Your task to perform on an android device: turn on improve location accuracy Image 0: 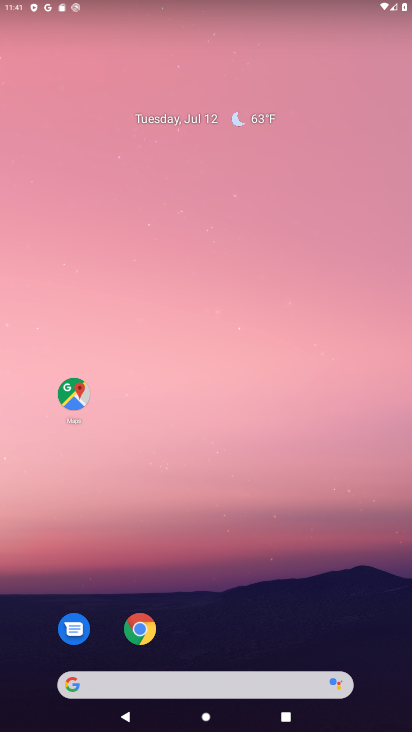
Step 0: drag from (224, 616) to (250, 158)
Your task to perform on an android device: turn on improve location accuracy Image 1: 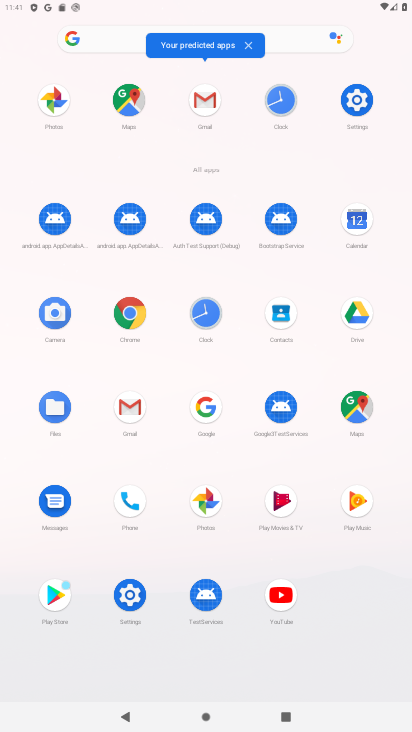
Step 1: click (123, 599)
Your task to perform on an android device: turn on improve location accuracy Image 2: 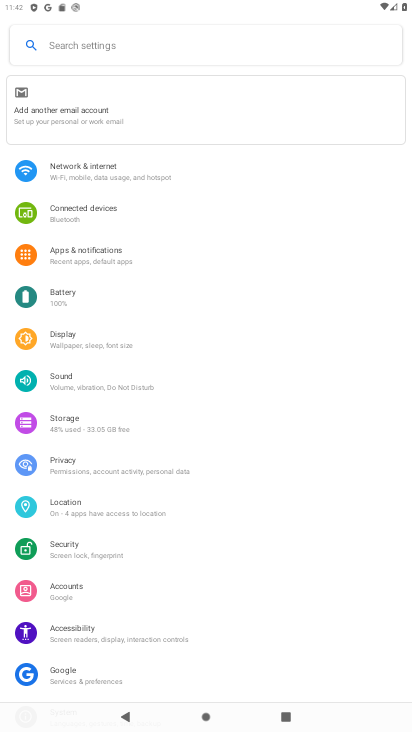
Step 2: click (99, 516)
Your task to perform on an android device: turn on improve location accuracy Image 3: 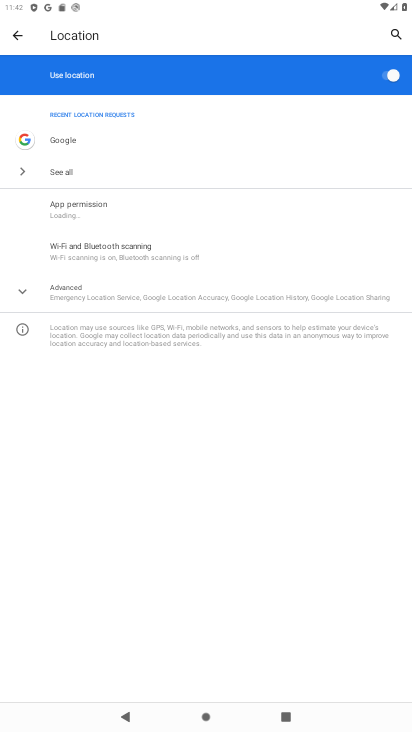
Step 3: click (87, 295)
Your task to perform on an android device: turn on improve location accuracy Image 4: 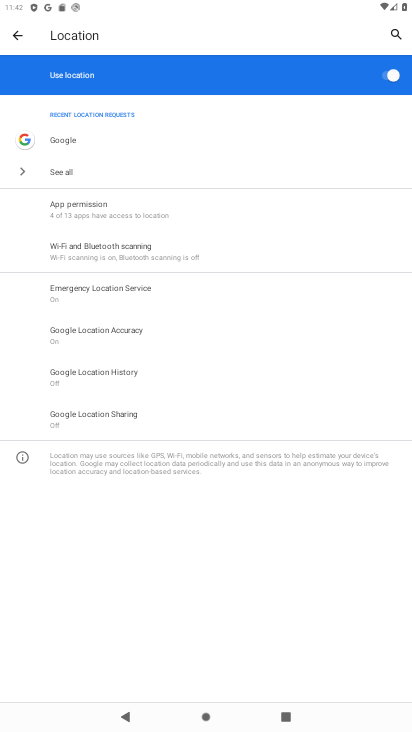
Step 4: click (91, 357)
Your task to perform on an android device: turn on improve location accuracy Image 5: 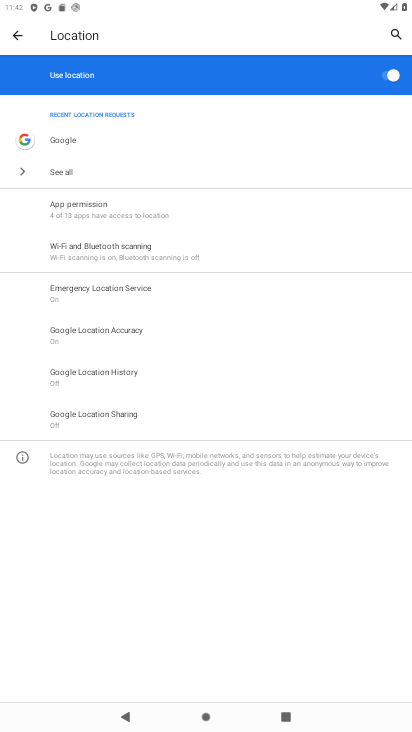
Step 5: click (134, 323)
Your task to perform on an android device: turn on improve location accuracy Image 6: 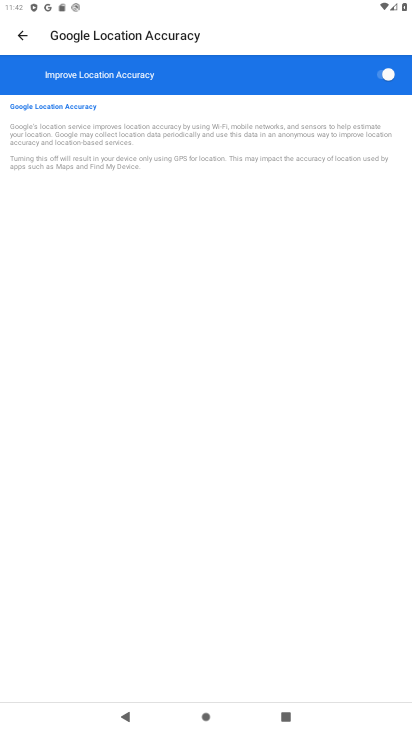
Step 6: task complete